Your task to perform on an android device: turn off data saver in the chrome app Image 0: 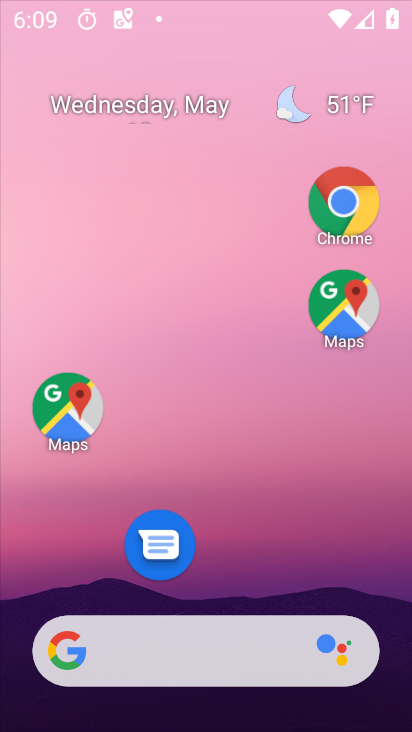
Step 0: click (217, 126)
Your task to perform on an android device: turn off data saver in the chrome app Image 1: 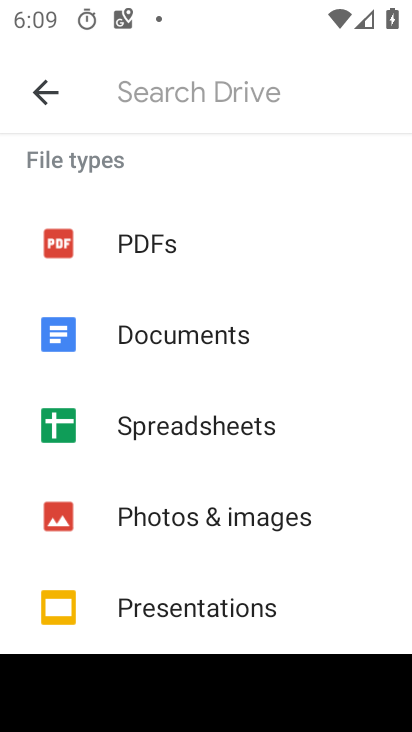
Step 1: press home button
Your task to perform on an android device: turn off data saver in the chrome app Image 2: 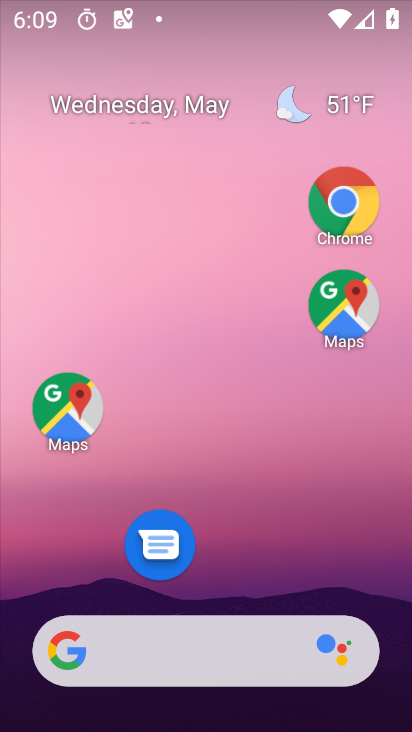
Step 2: drag from (193, 217) to (193, 118)
Your task to perform on an android device: turn off data saver in the chrome app Image 3: 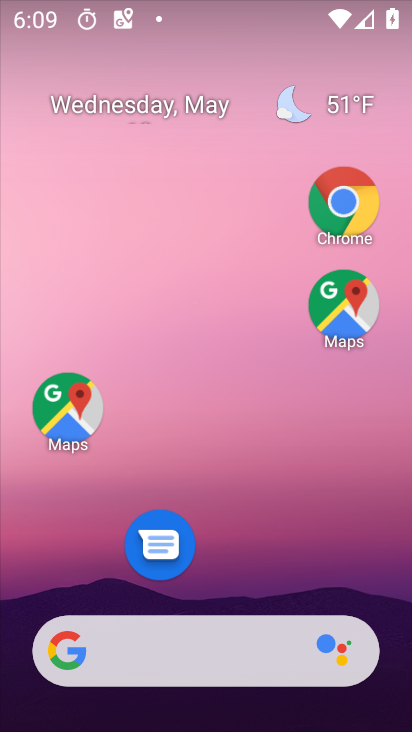
Step 3: drag from (247, 264) to (241, 10)
Your task to perform on an android device: turn off data saver in the chrome app Image 4: 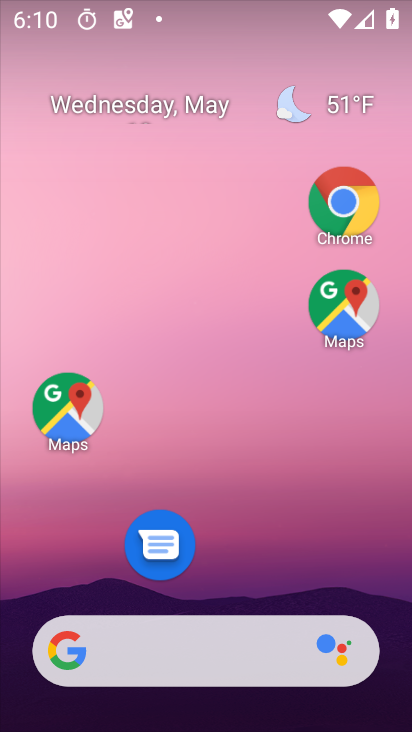
Step 4: click (341, 237)
Your task to perform on an android device: turn off data saver in the chrome app Image 5: 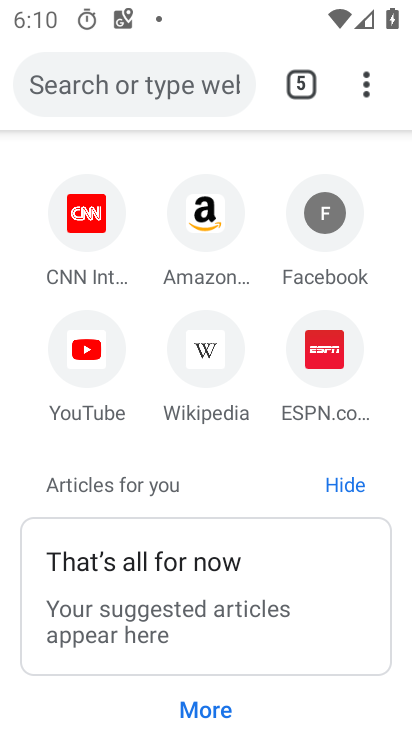
Step 5: click (198, 233)
Your task to perform on an android device: turn off data saver in the chrome app Image 6: 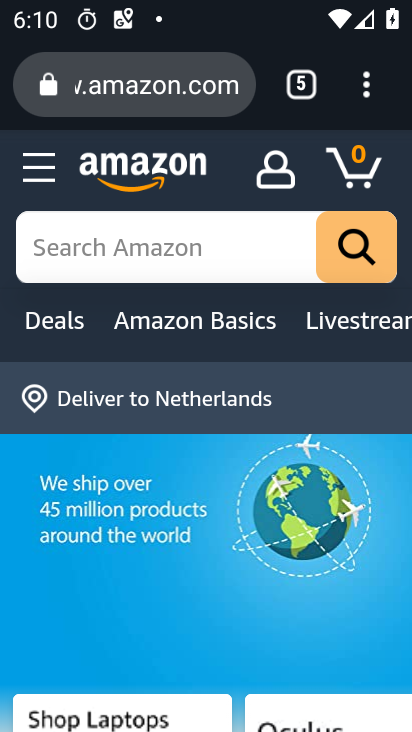
Step 6: task complete